Your task to perform on an android device: all mails in gmail Image 0: 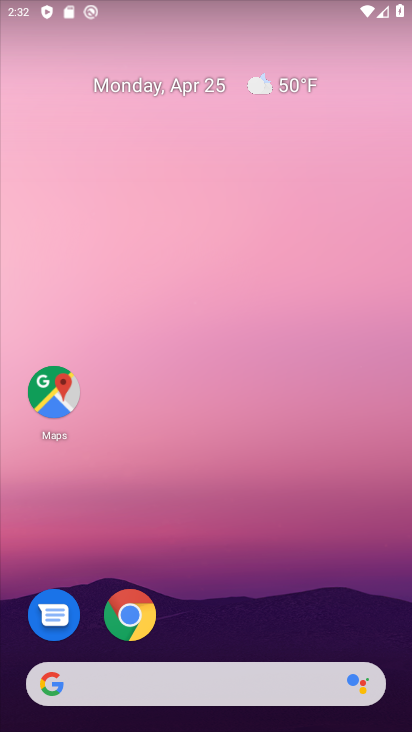
Step 0: drag from (260, 721) to (218, 78)
Your task to perform on an android device: all mails in gmail Image 1: 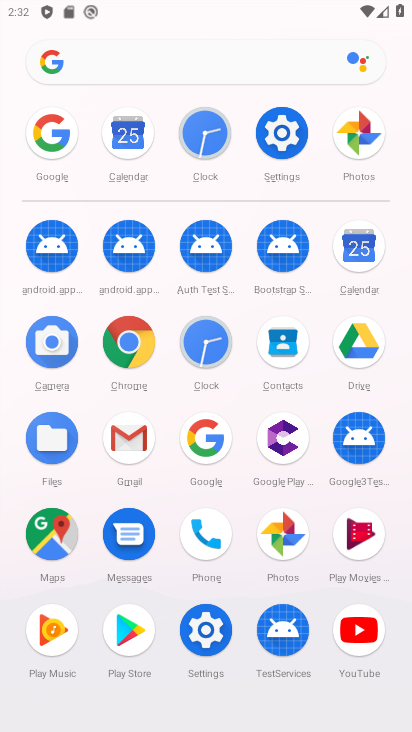
Step 1: click (128, 437)
Your task to perform on an android device: all mails in gmail Image 2: 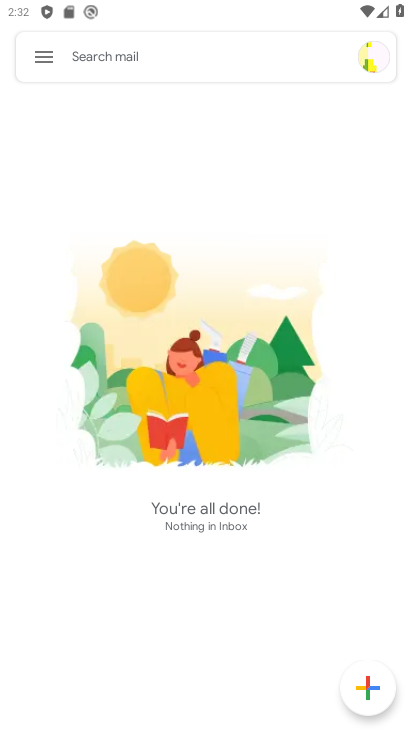
Step 2: click (41, 53)
Your task to perform on an android device: all mails in gmail Image 3: 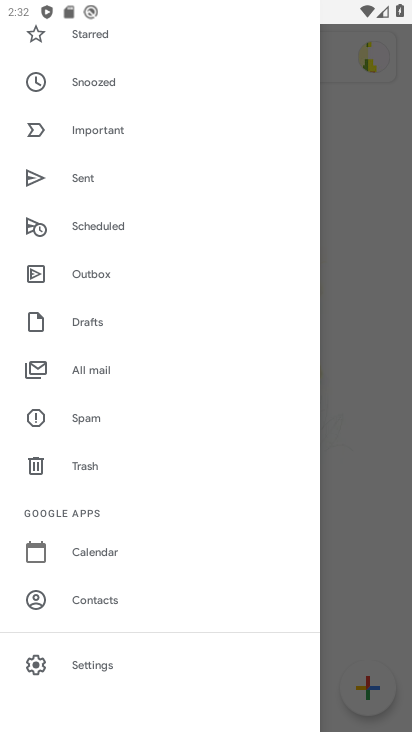
Step 3: click (81, 367)
Your task to perform on an android device: all mails in gmail Image 4: 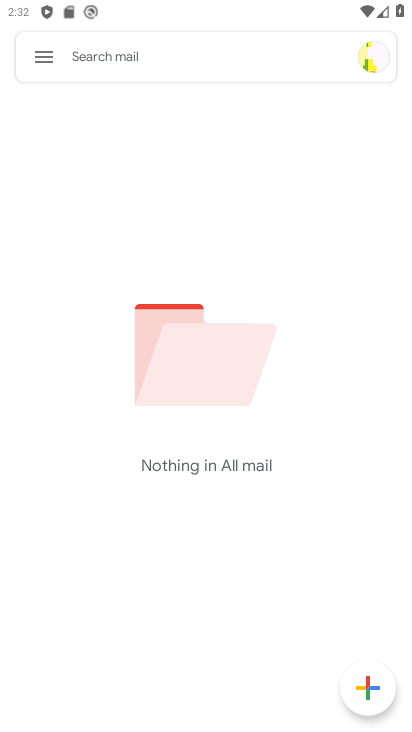
Step 4: task complete